Your task to perform on an android device: Show me productivity apps on the Play Store Image 0: 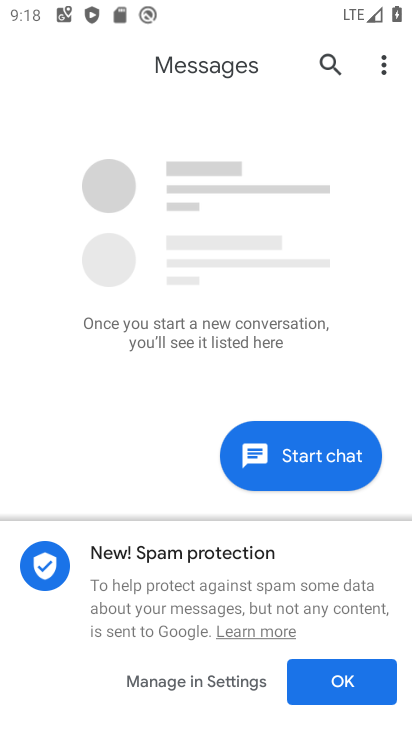
Step 0: press home button
Your task to perform on an android device: Show me productivity apps on the Play Store Image 1: 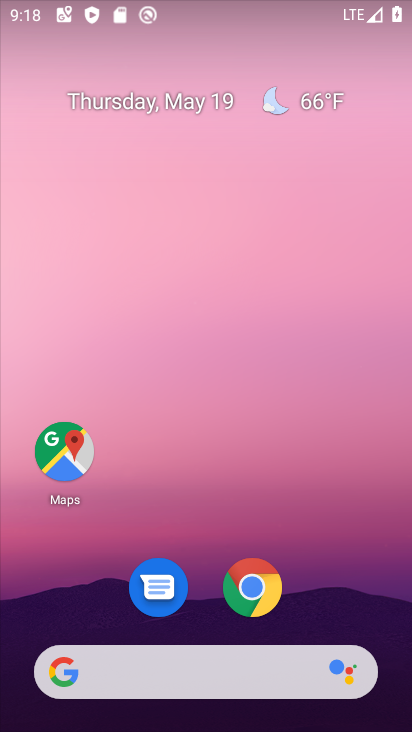
Step 1: drag from (268, 642) to (237, 370)
Your task to perform on an android device: Show me productivity apps on the Play Store Image 2: 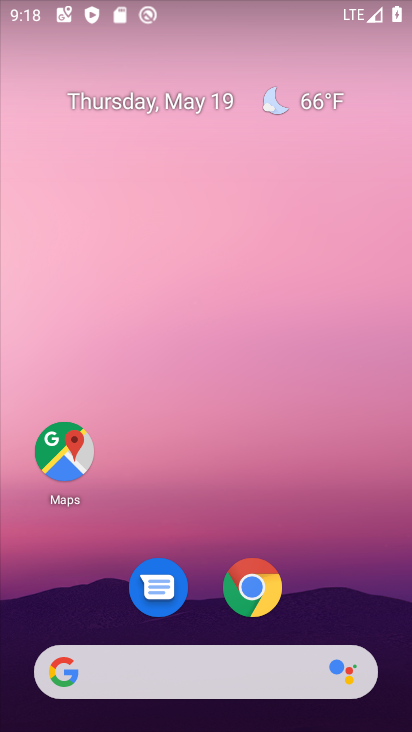
Step 2: drag from (237, 690) to (240, 188)
Your task to perform on an android device: Show me productivity apps on the Play Store Image 3: 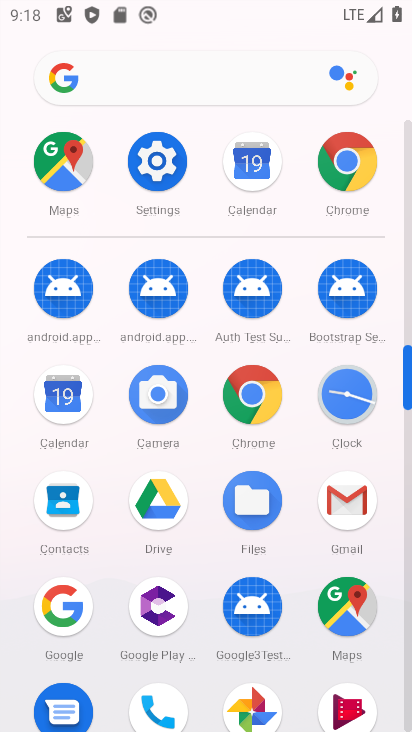
Step 3: drag from (214, 563) to (224, 373)
Your task to perform on an android device: Show me productivity apps on the Play Store Image 4: 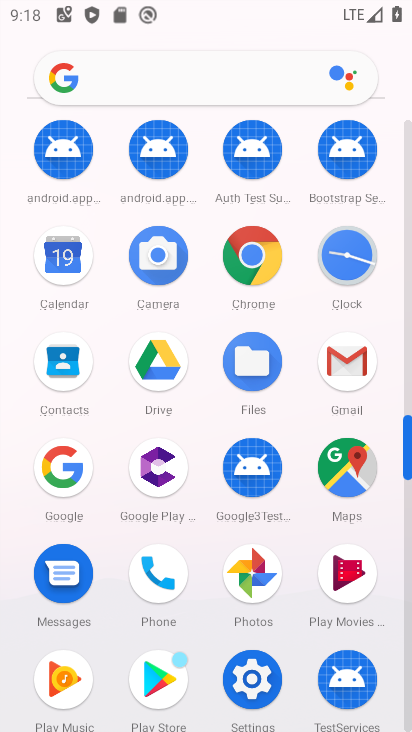
Step 4: click (172, 671)
Your task to perform on an android device: Show me productivity apps on the Play Store Image 5: 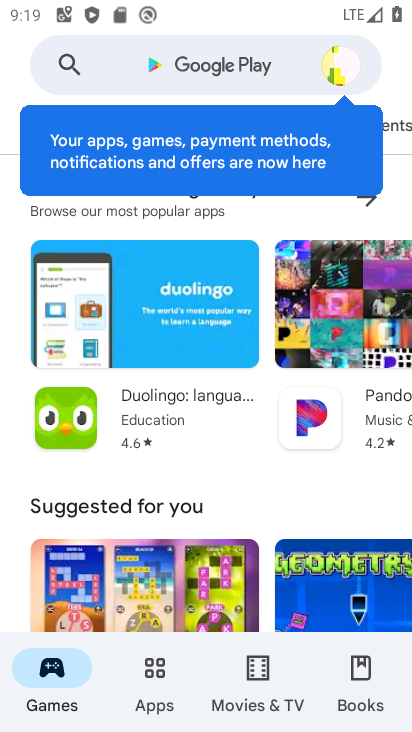
Step 5: click (205, 74)
Your task to perform on an android device: Show me productivity apps on the Play Store Image 6: 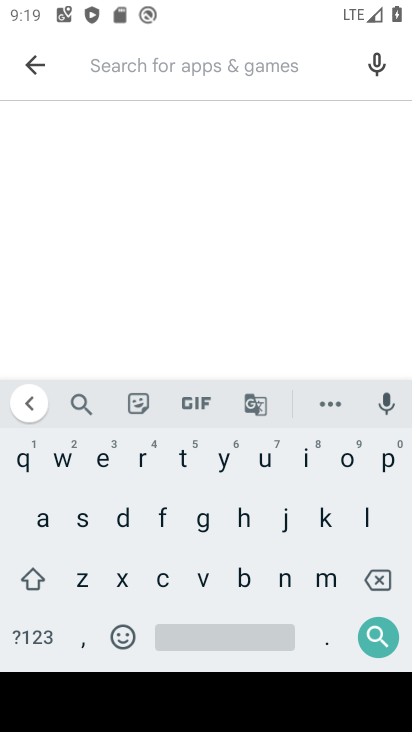
Step 6: click (379, 466)
Your task to perform on an android device: Show me productivity apps on the Play Store Image 7: 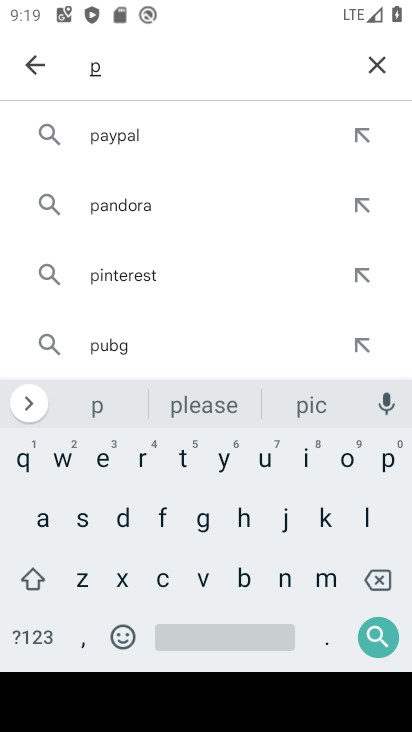
Step 7: click (131, 464)
Your task to perform on an android device: Show me productivity apps on the Play Store Image 8: 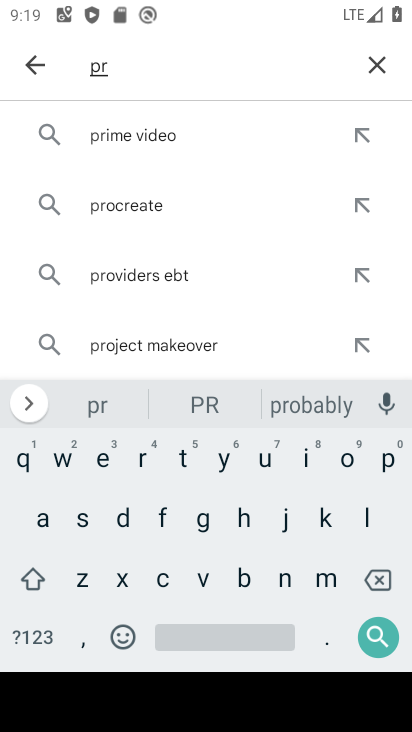
Step 8: click (343, 461)
Your task to perform on an android device: Show me productivity apps on the Play Store Image 9: 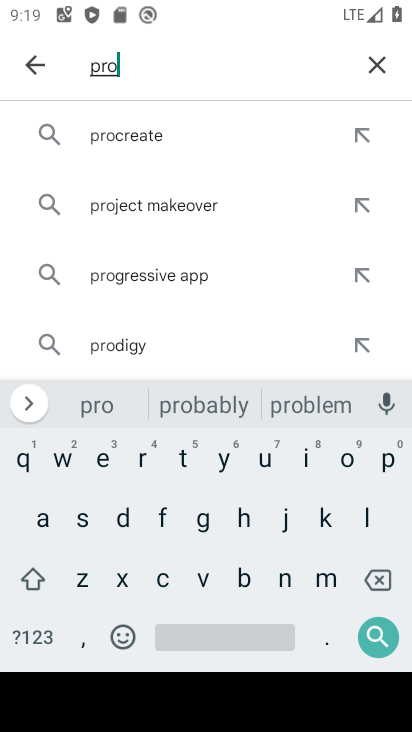
Step 9: click (125, 521)
Your task to perform on an android device: Show me productivity apps on the Play Store Image 10: 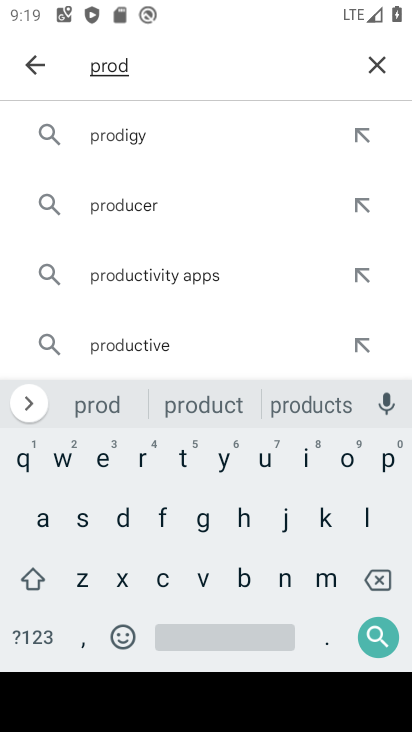
Step 10: click (271, 460)
Your task to perform on an android device: Show me productivity apps on the Play Store Image 11: 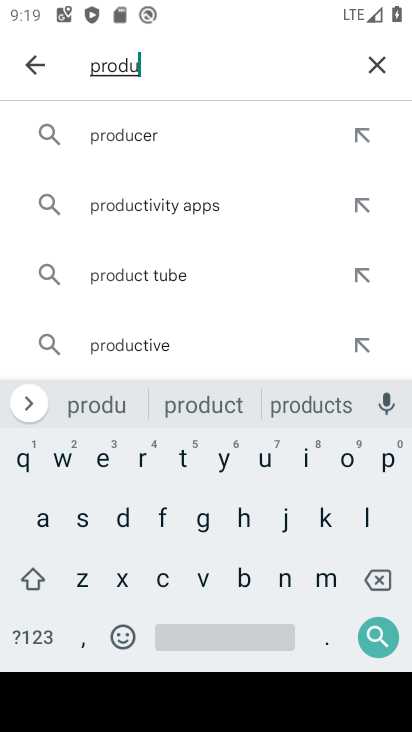
Step 11: click (153, 203)
Your task to perform on an android device: Show me productivity apps on the Play Store Image 12: 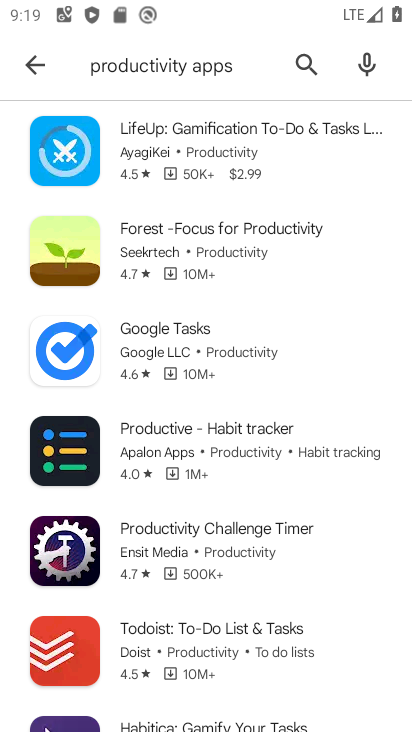
Step 12: task complete